Your task to perform on an android device: Search for hotels in Paris Image 0: 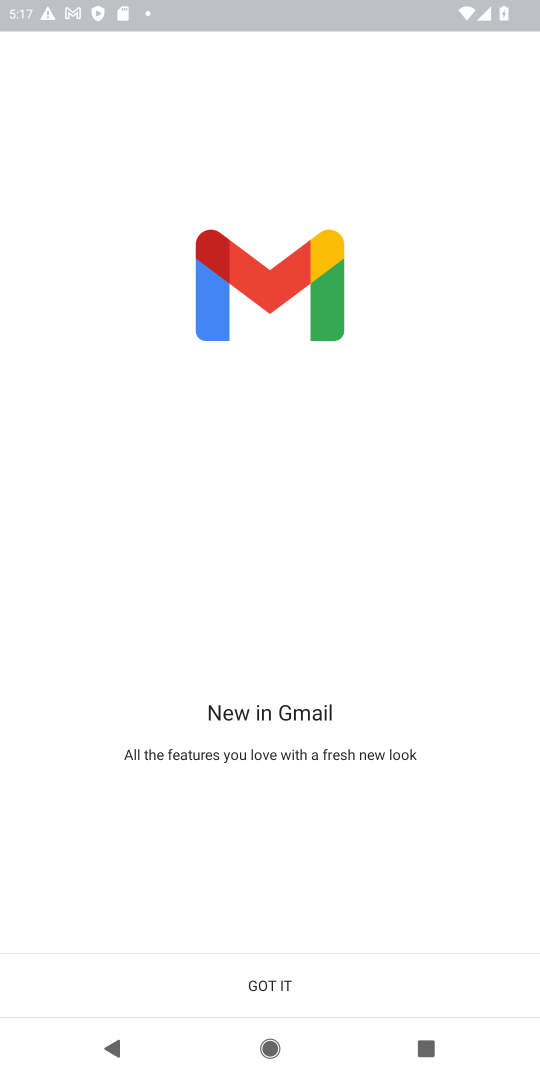
Step 0: press home button
Your task to perform on an android device: Search for hotels in Paris Image 1: 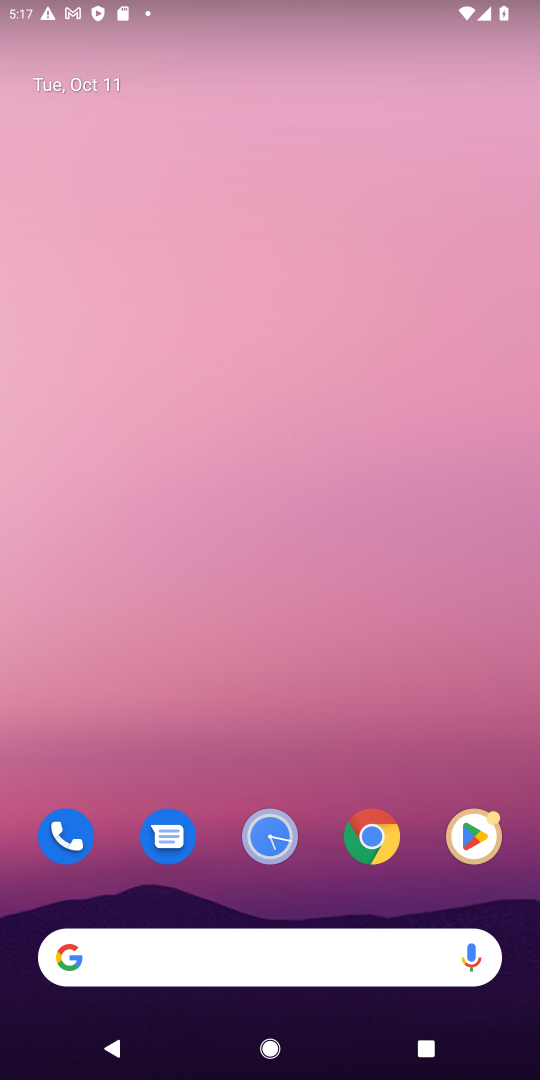
Step 1: click (370, 838)
Your task to perform on an android device: Search for hotels in Paris Image 2: 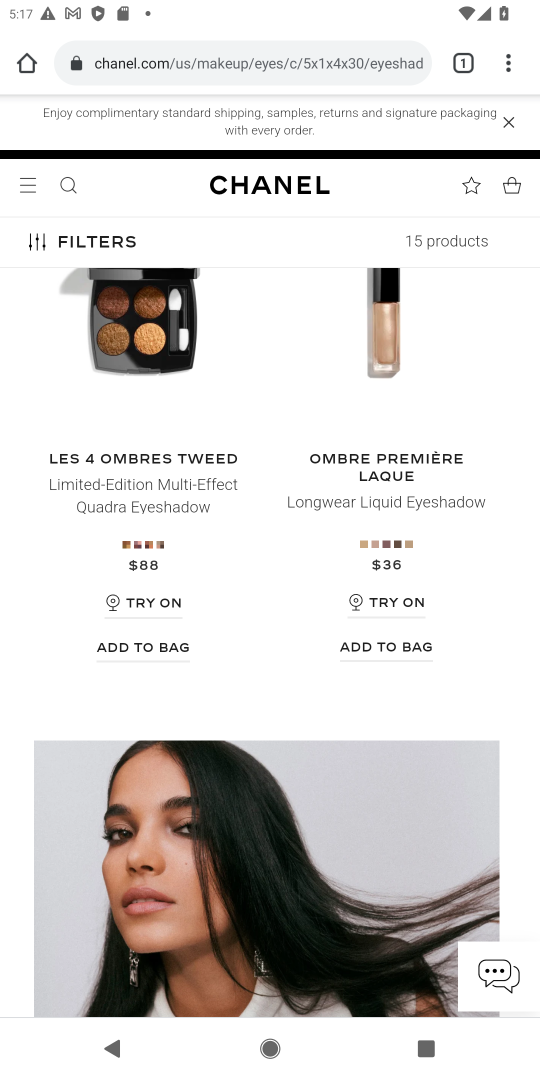
Step 2: click (249, 49)
Your task to perform on an android device: Search for hotels in Paris Image 3: 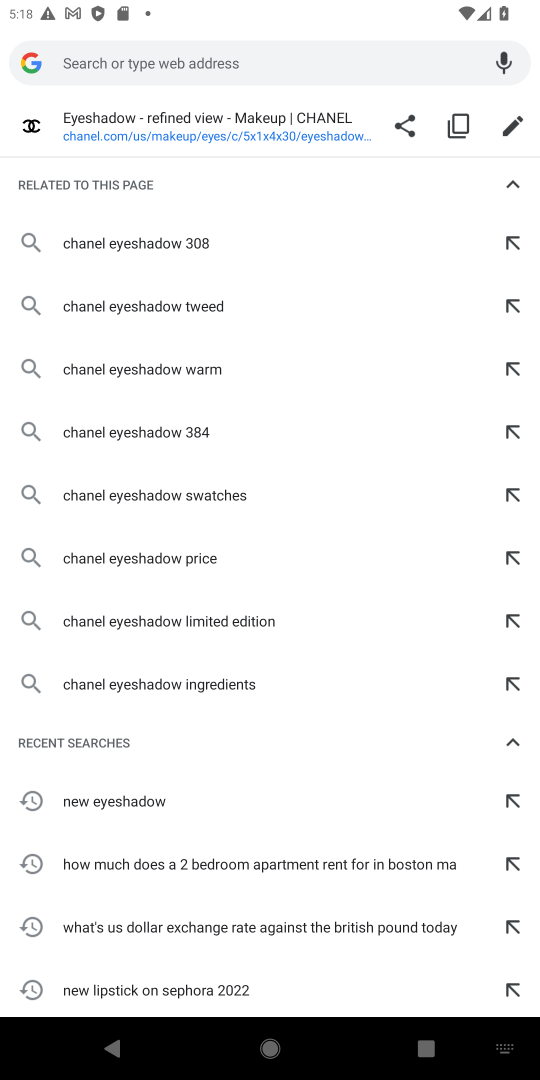
Step 3: type "hotels in paris"
Your task to perform on an android device: Search for hotels in Paris Image 4: 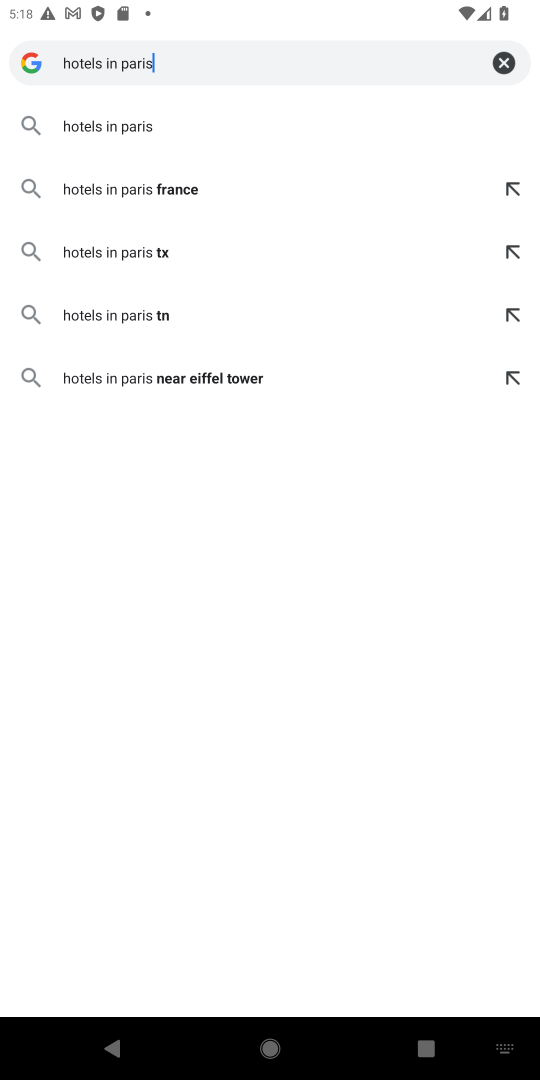
Step 4: click (86, 118)
Your task to perform on an android device: Search for hotels in Paris Image 5: 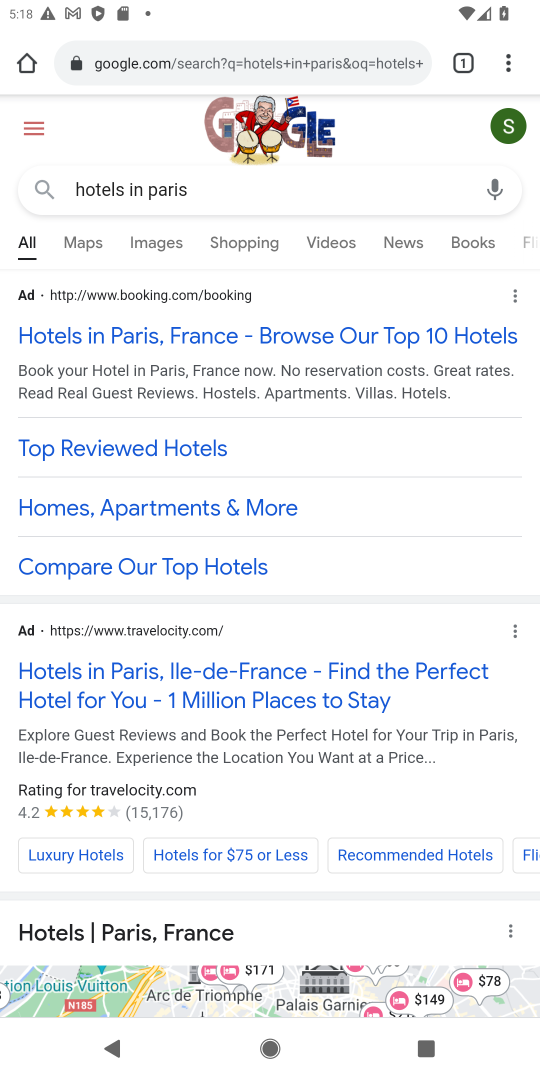
Step 5: click (95, 337)
Your task to perform on an android device: Search for hotels in Paris Image 6: 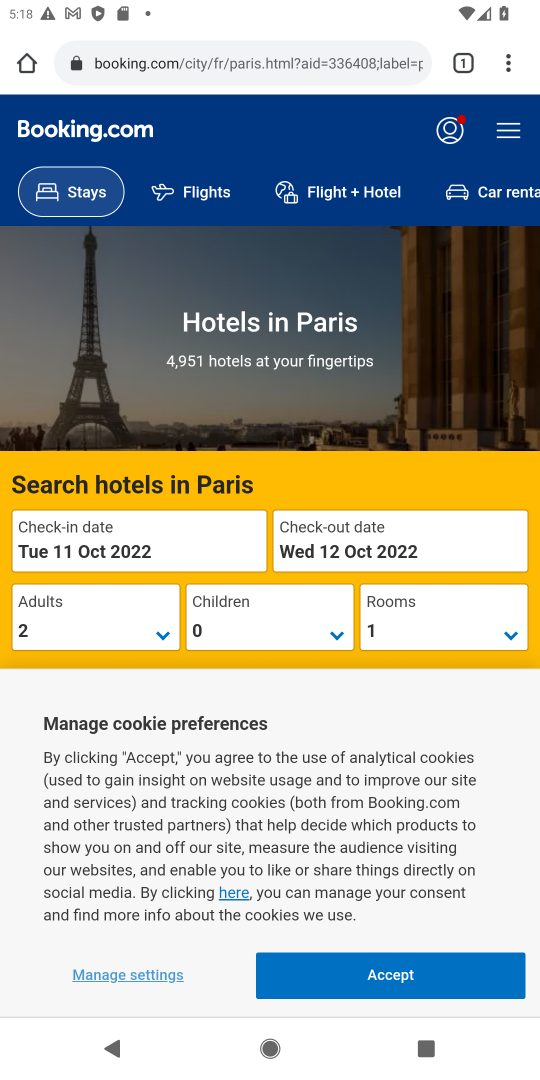
Step 6: click (381, 980)
Your task to perform on an android device: Search for hotels in Paris Image 7: 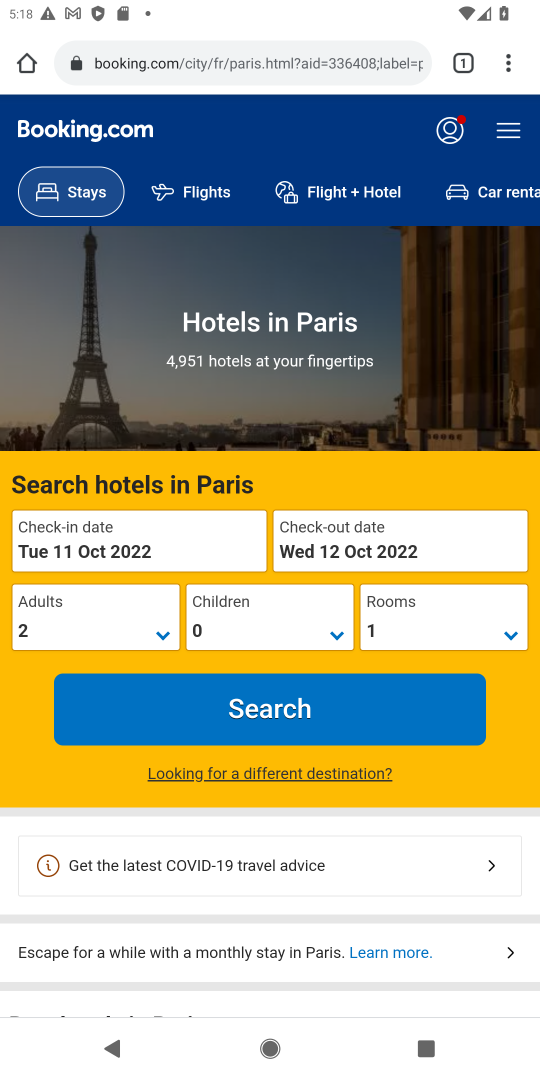
Step 7: click (253, 704)
Your task to perform on an android device: Search for hotels in Paris Image 8: 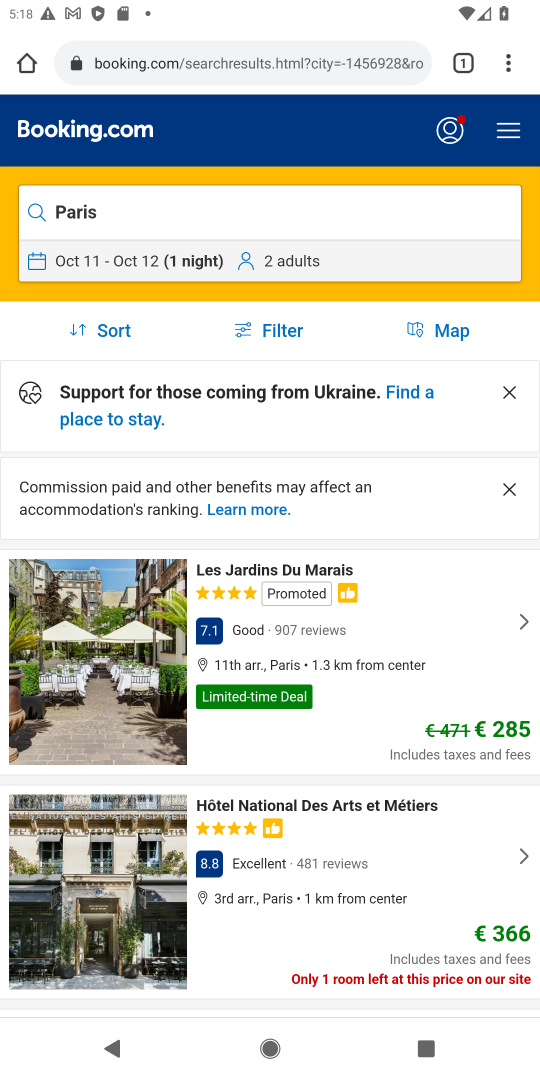
Step 8: task complete